Your task to perform on an android device: add a contact in the contacts app Image 0: 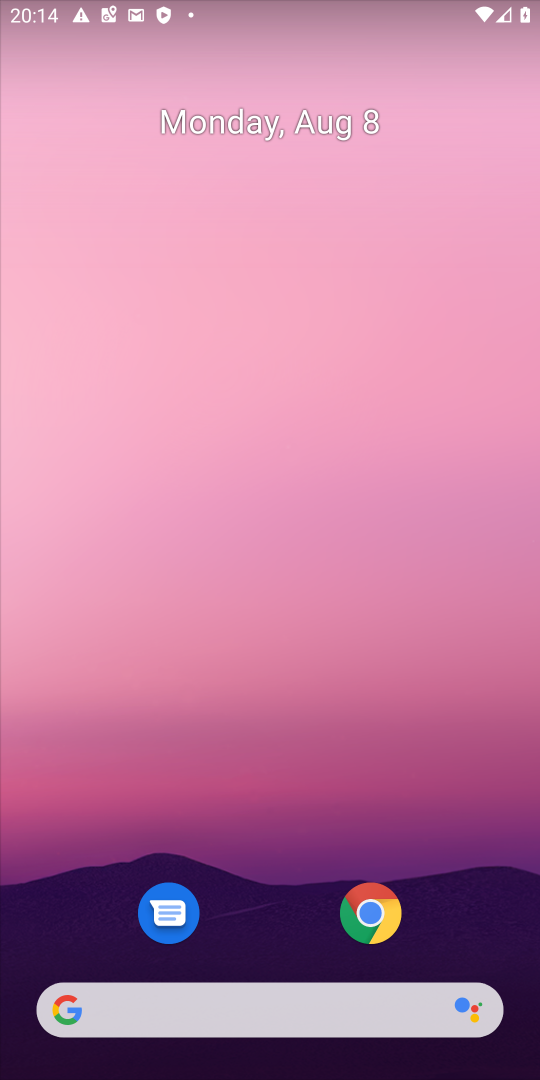
Step 0: press home button
Your task to perform on an android device: add a contact in the contacts app Image 1: 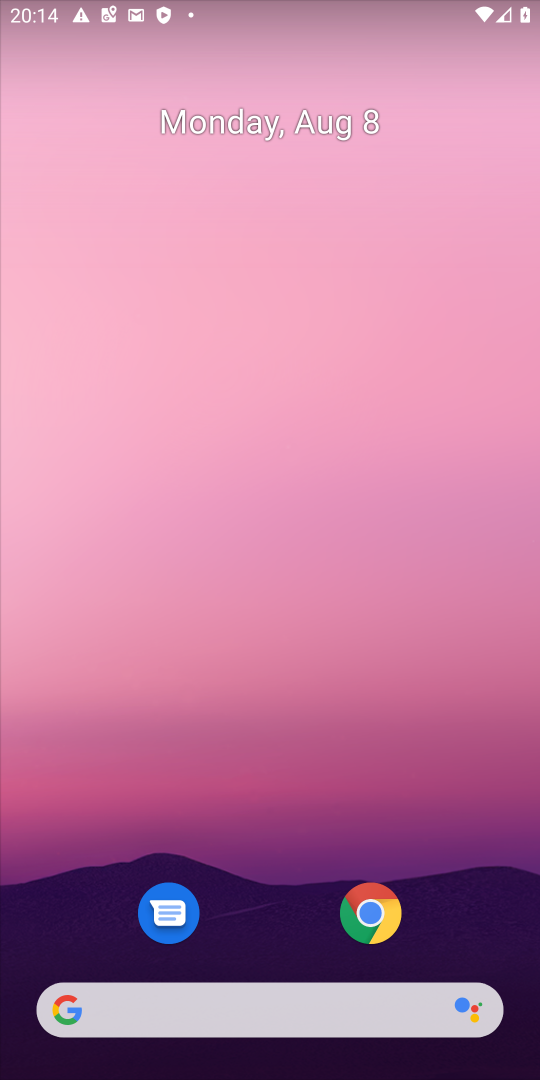
Step 1: drag from (363, 892) to (420, 177)
Your task to perform on an android device: add a contact in the contacts app Image 2: 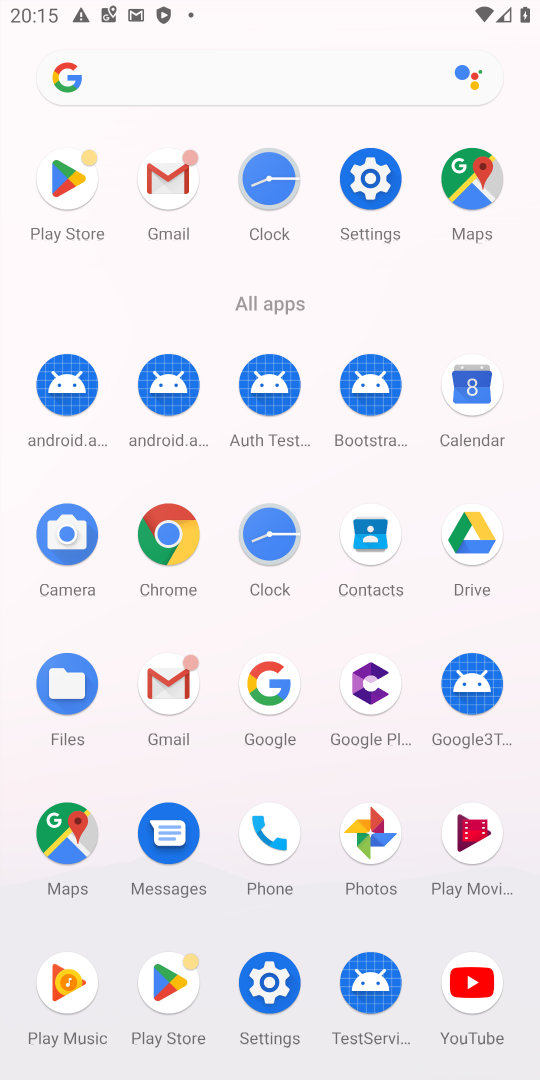
Step 2: click (370, 549)
Your task to perform on an android device: add a contact in the contacts app Image 3: 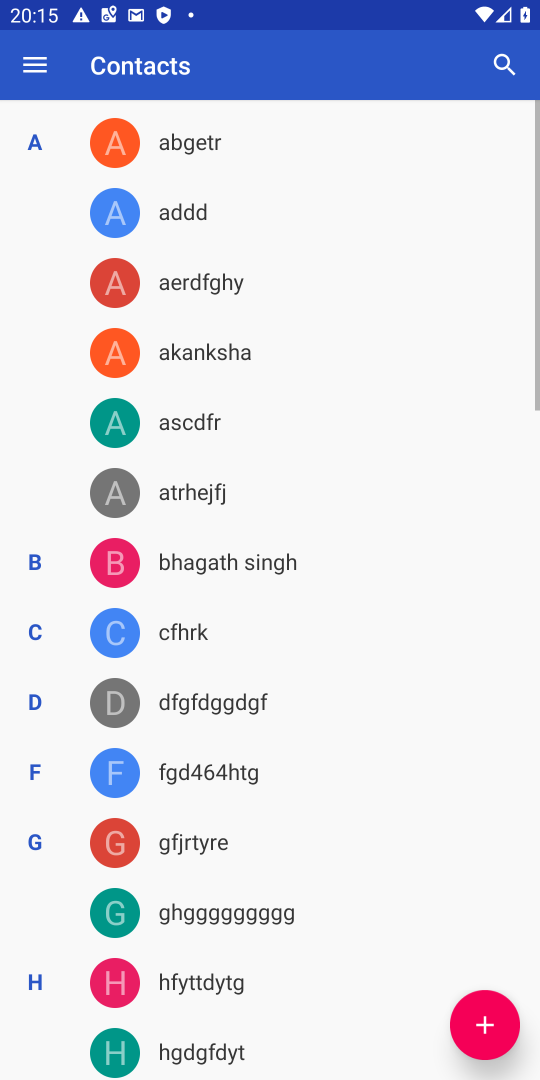
Step 3: click (479, 1013)
Your task to perform on an android device: add a contact in the contacts app Image 4: 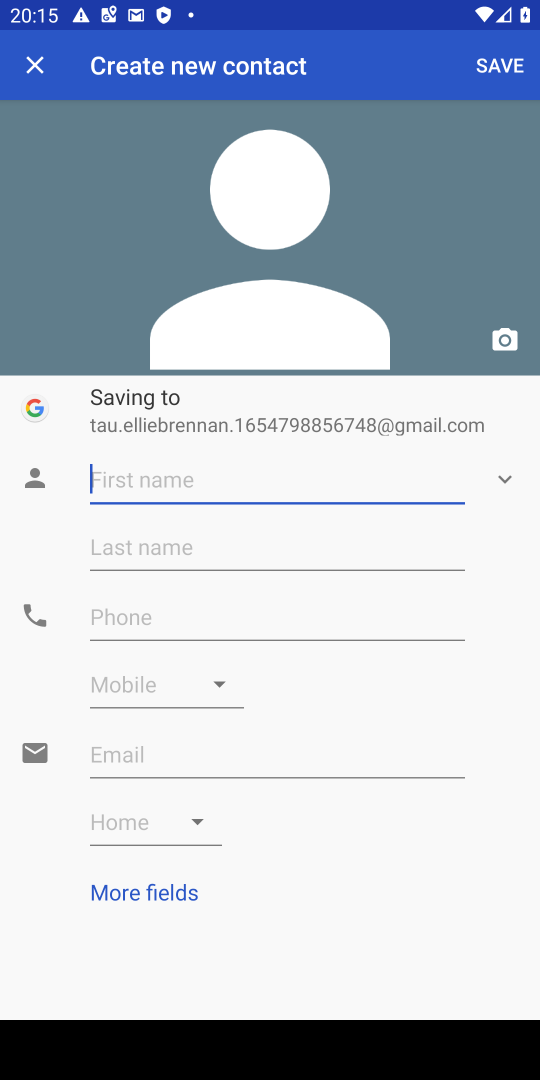
Step 4: click (245, 478)
Your task to perform on an android device: add a contact in the contacts app Image 5: 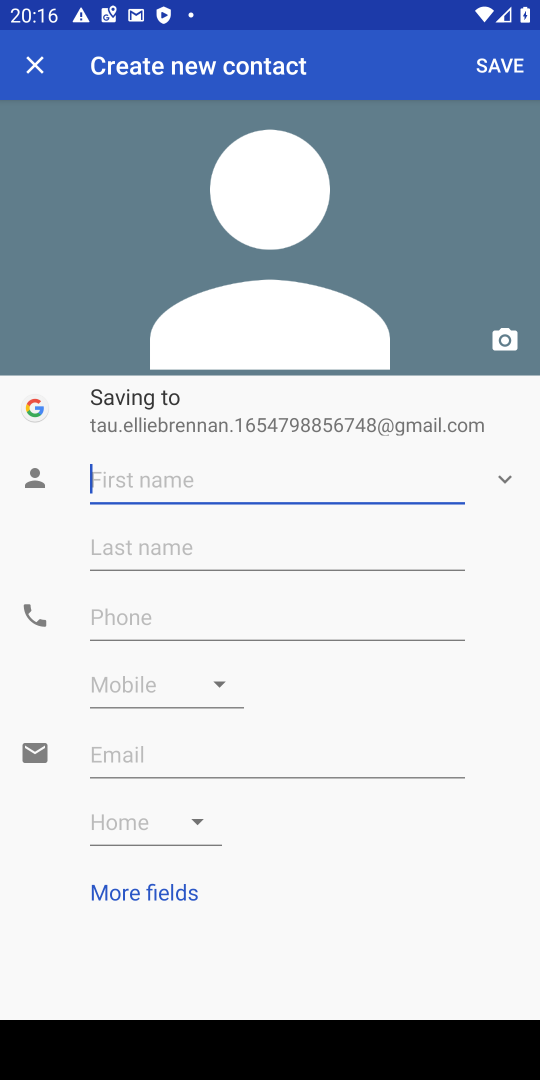
Step 5: type "ijjdjo"
Your task to perform on an android device: add a contact in the contacts app Image 6: 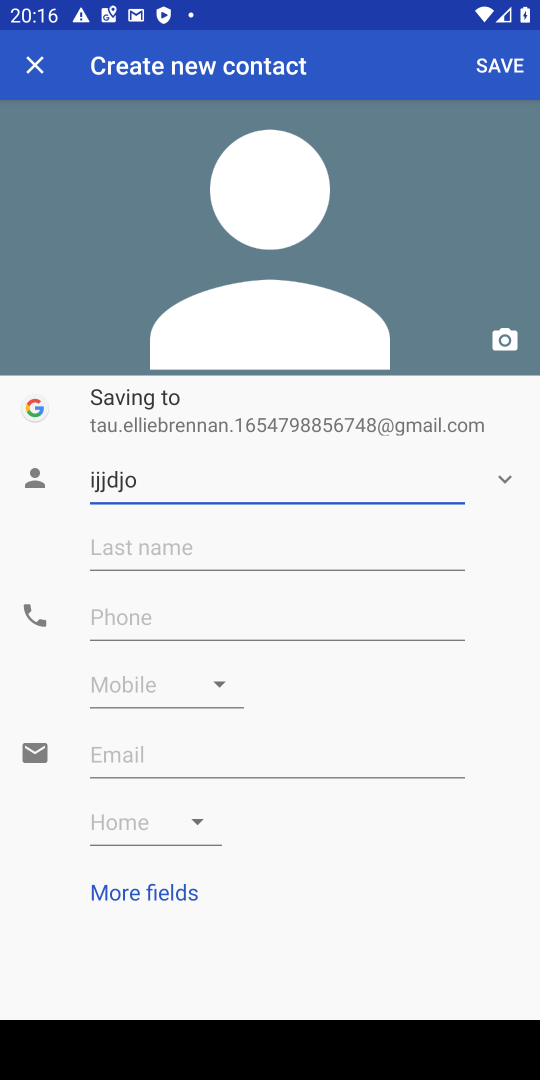
Step 6: click (179, 595)
Your task to perform on an android device: add a contact in the contacts app Image 7: 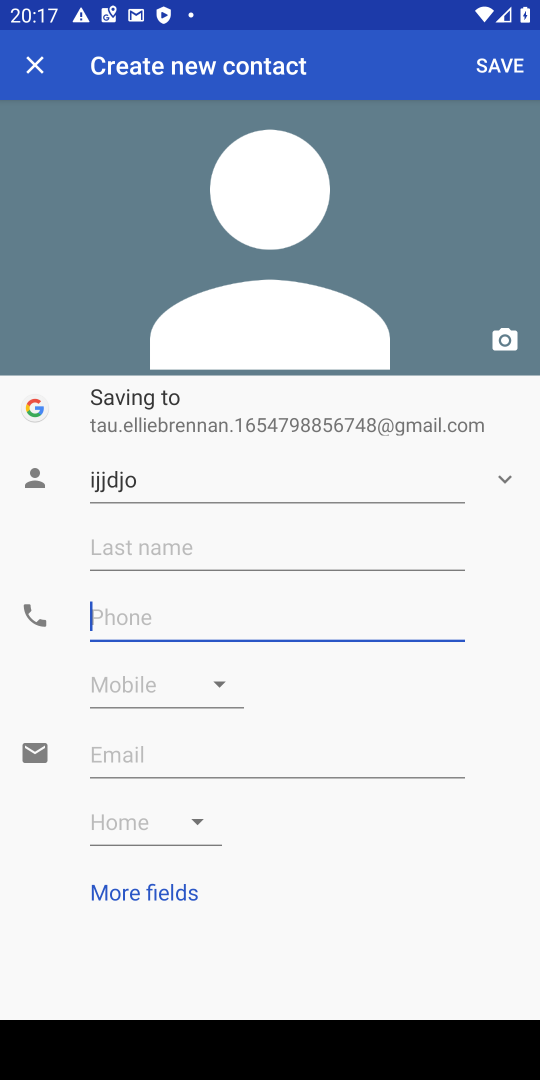
Step 7: type "45678"
Your task to perform on an android device: add a contact in the contacts app Image 8: 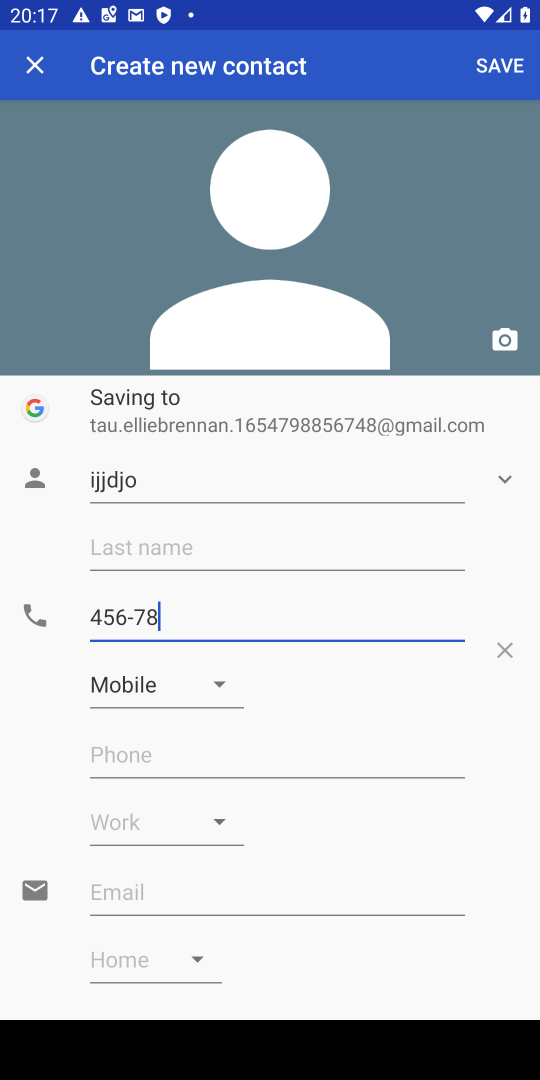
Step 8: click (493, 59)
Your task to perform on an android device: add a contact in the contacts app Image 9: 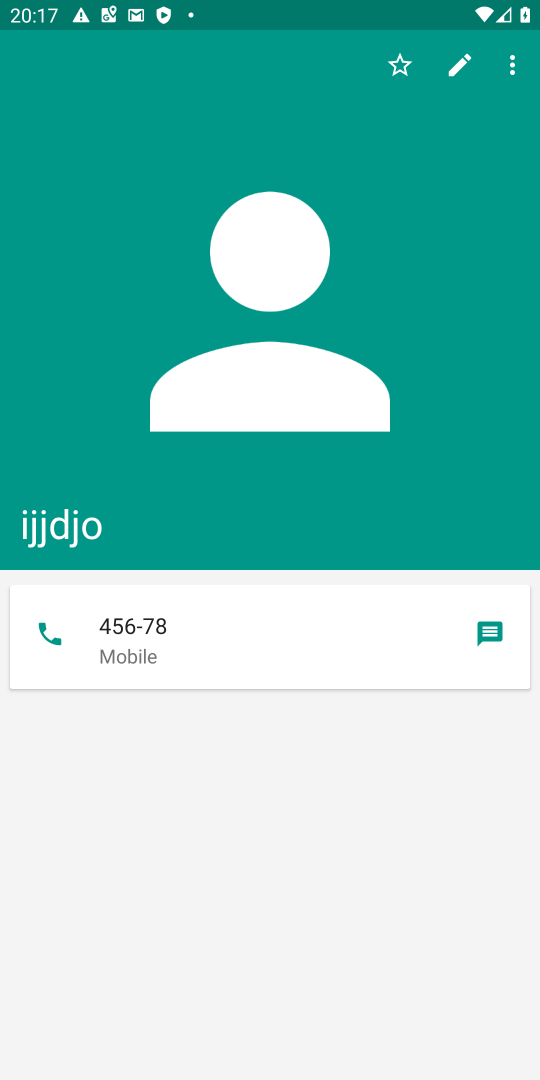
Step 9: task complete